Your task to perform on an android device: Search for Italian restaurants on Maps Image 0: 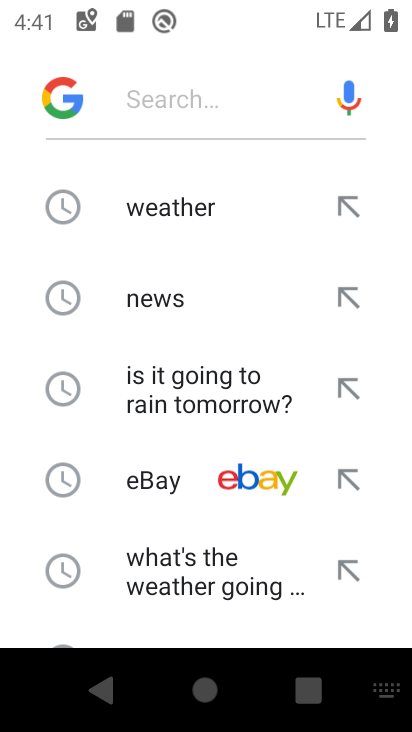
Step 0: press home button
Your task to perform on an android device: Search for Italian restaurants on Maps Image 1: 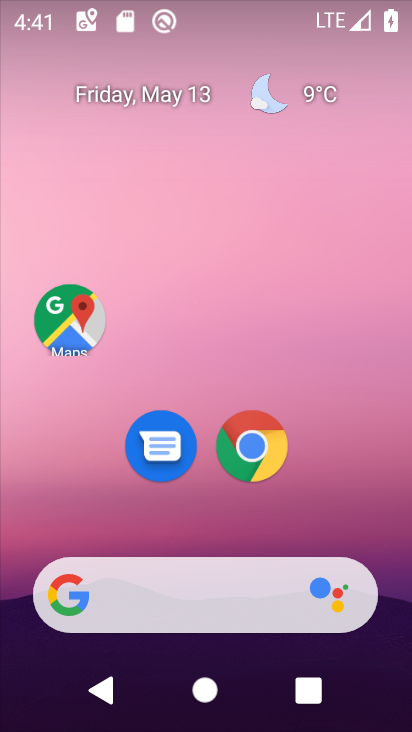
Step 1: click (69, 313)
Your task to perform on an android device: Search for Italian restaurants on Maps Image 2: 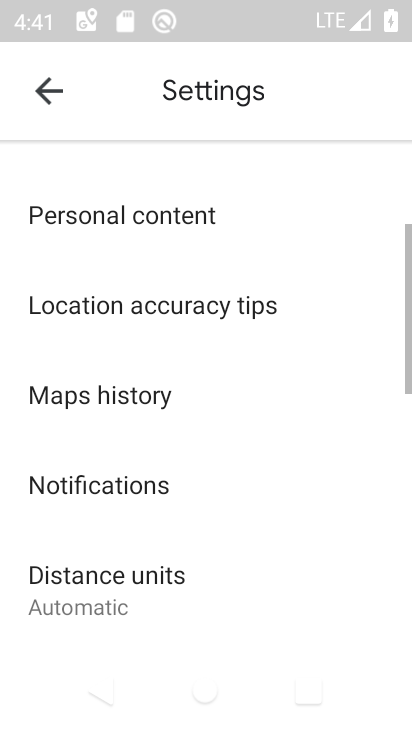
Step 2: click (56, 97)
Your task to perform on an android device: Search for Italian restaurants on Maps Image 3: 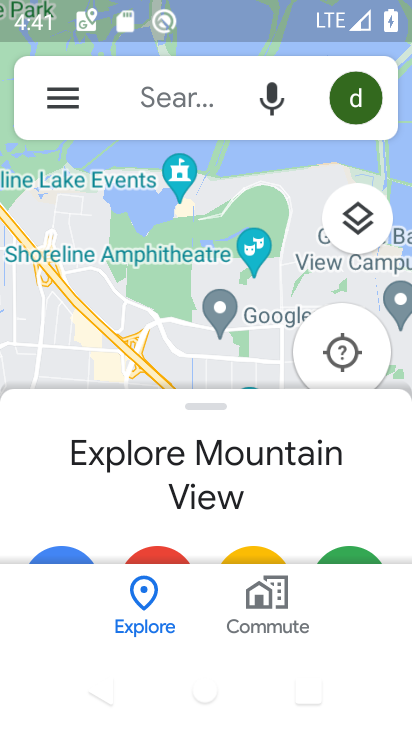
Step 3: click (182, 108)
Your task to perform on an android device: Search for Italian restaurants on Maps Image 4: 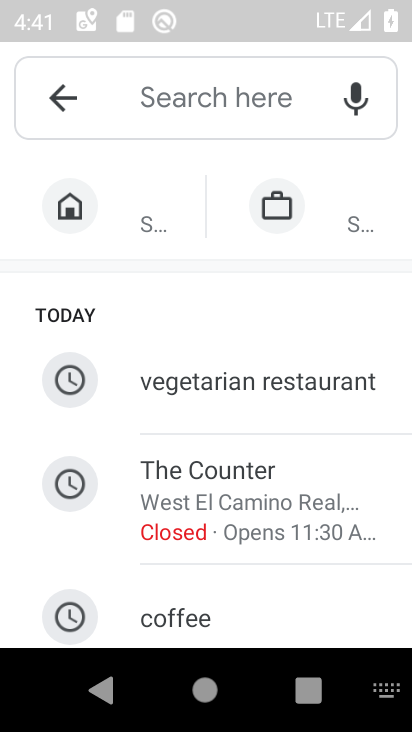
Step 4: type "italian restaurants"
Your task to perform on an android device: Search for Italian restaurants on Maps Image 5: 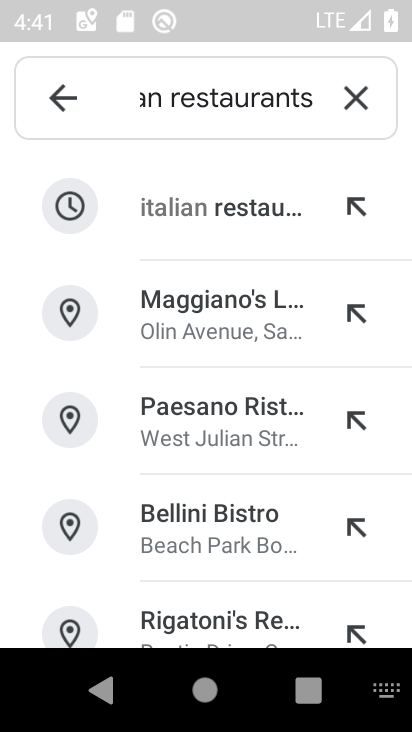
Step 5: click (233, 212)
Your task to perform on an android device: Search for Italian restaurants on Maps Image 6: 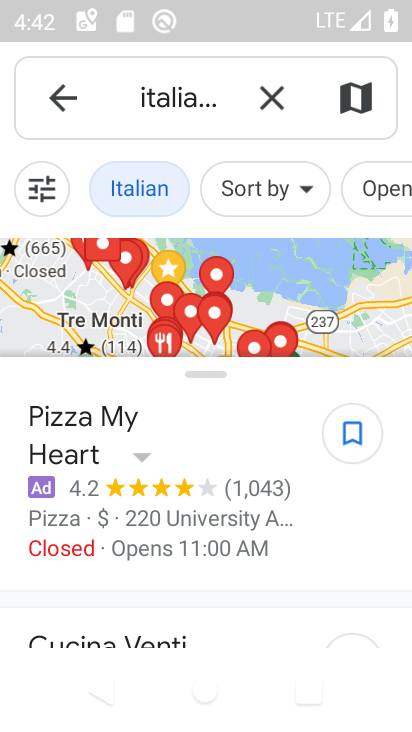
Step 6: task complete